Your task to perform on an android device: Set the phone to "Do not disturb". Image 0: 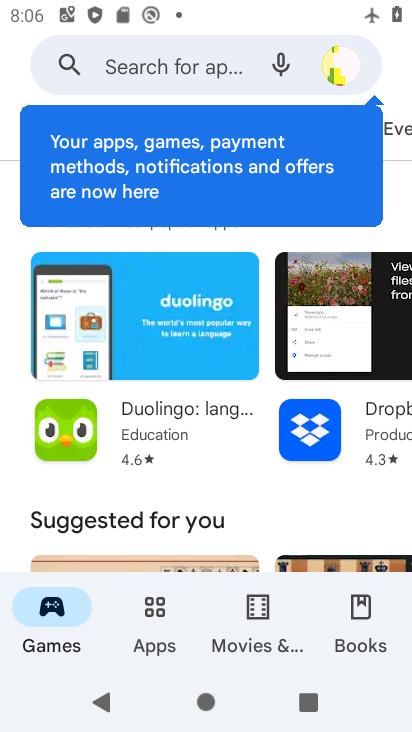
Step 0: press home button
Your task to perform on an android device: Set the phone to "Do not disturb". Image 1: 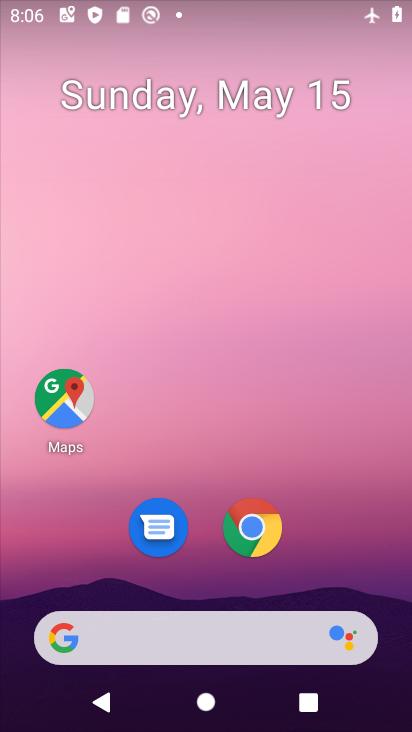
Step 1: drag from (204, 583) to (210, 134)
Your task to perform on an android device: Set the phone to "Do not disturb". Image 2: 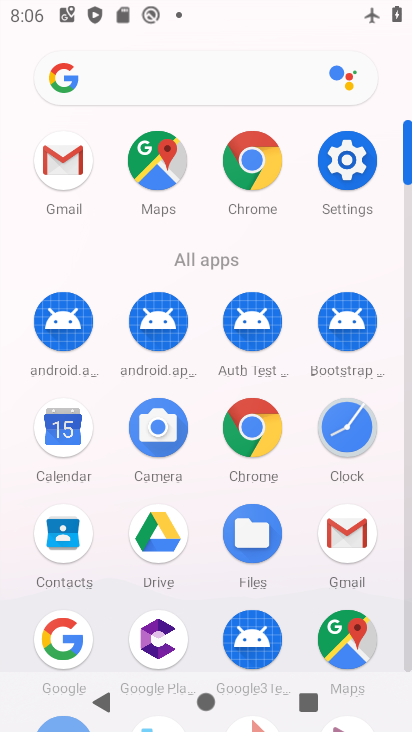
Step 2: click (345, 178)
Your task to perform on an android device: Set the phone to "Do not disturb". Image 3: 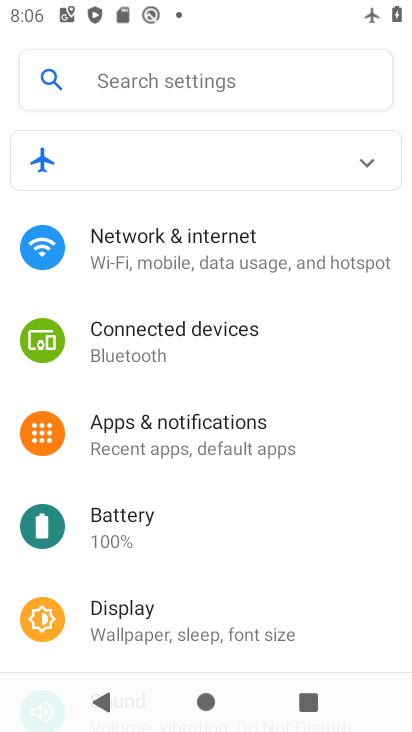
Step 3: drag from (194, 593) to (256, 342)
Your task to perform on an android device: Set the phone to "Do not disturb". Image 4: 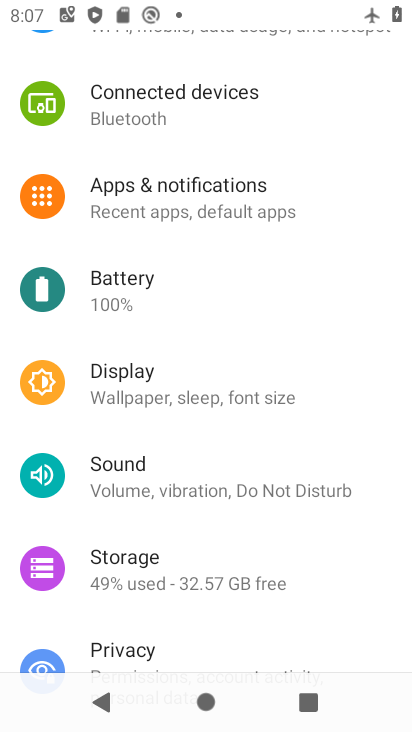
Step 4: click (175, 480)
Your task to perform on an android device: Set the phone to "Do not disturb". Image 5: 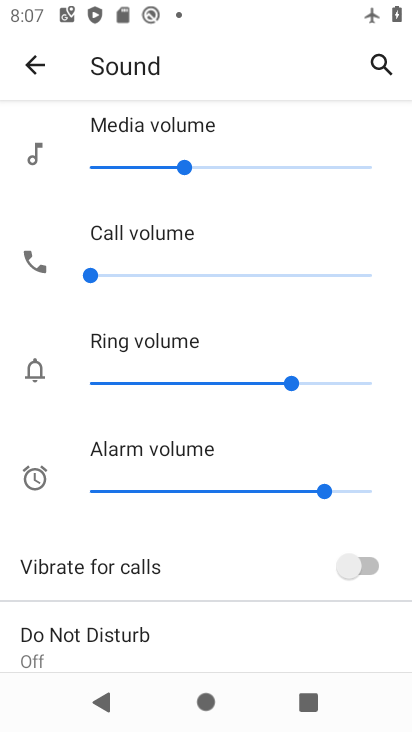
Step 5: click (166, 638)
Your task to perform on an android device: Set the phone to "Do not disturb". Image 6: 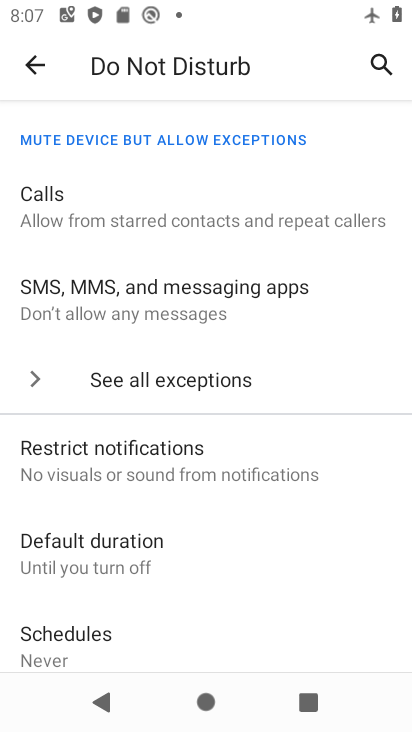
Step 6: drag from (184, 558) to (232, 338)
Your task to perform on an android device: Set the phone to "Do not disturb". Image 7: 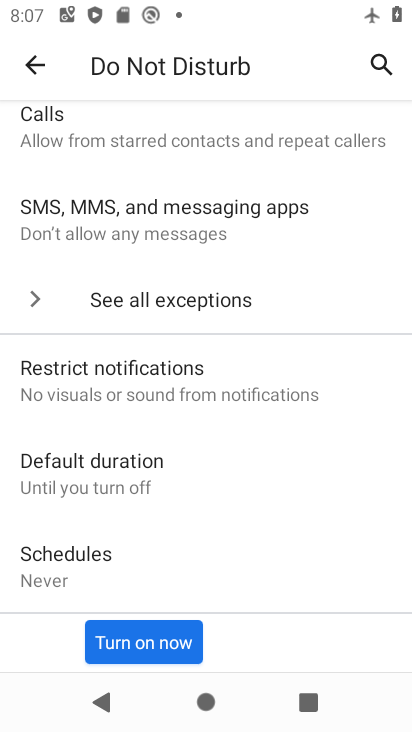
Step 7: click (163, 633)
Your task to perform on an android device: Set the phone to "Do not disturb". Image 8: 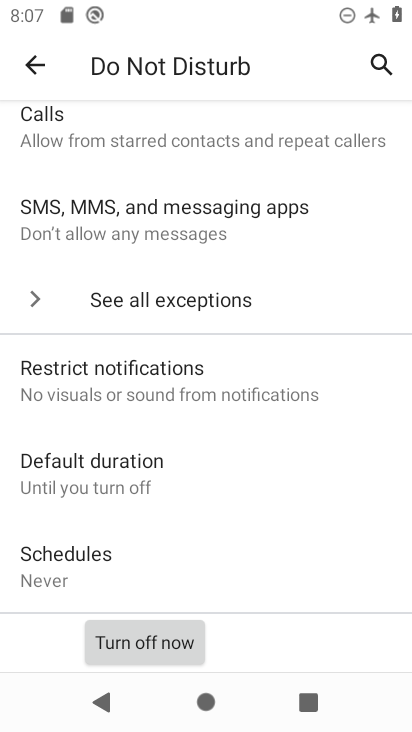
Step 8: task complete